Your task to perform on an android device: What's on my calendar tomorrow? Image 0: 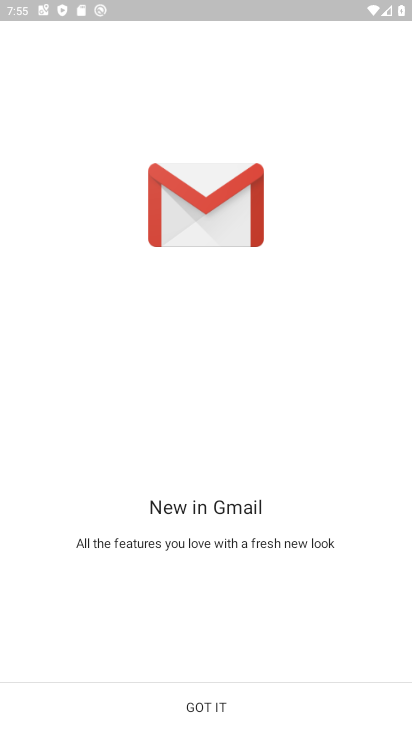
Step 0: press back button
Your task to perform on an android device: What's on my calendar tomorrow? Image 1: 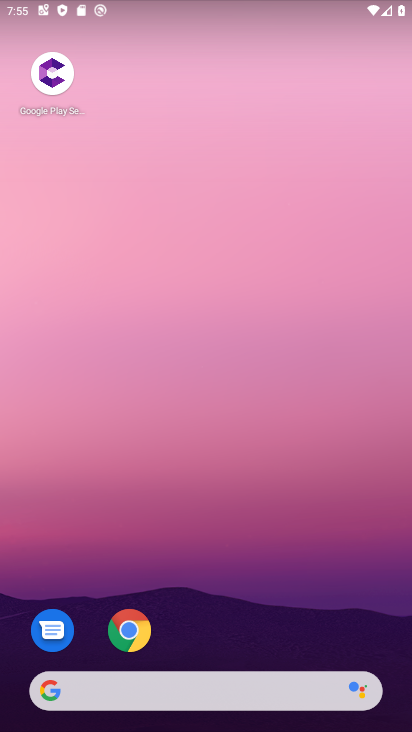
Step 1: drag from (282, 611) to (290, 13)
Your task to perform on an android device: What's on my calendar tomorrow? Image 2: 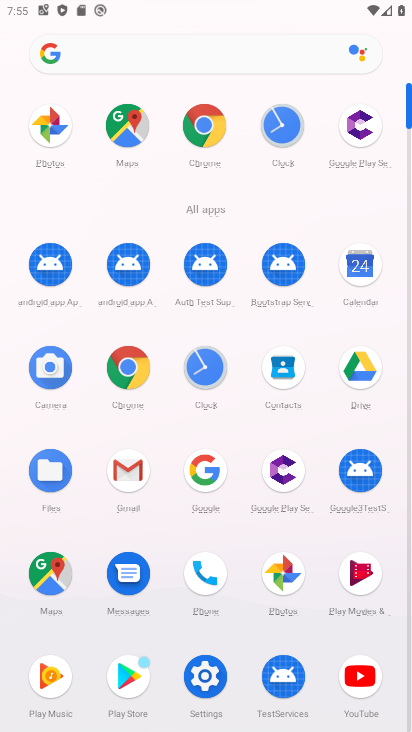
Step 2: click (357, 264)
Your task to perform on an android device: What's on my calendar tomorrow? Image 3: 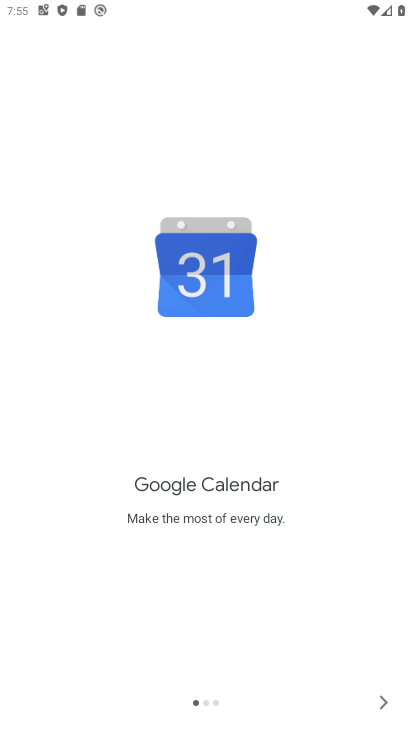
Step 3: click (391, 695)
Your task to perform on an android device: What's on my calendar tomorrow? Image 4: 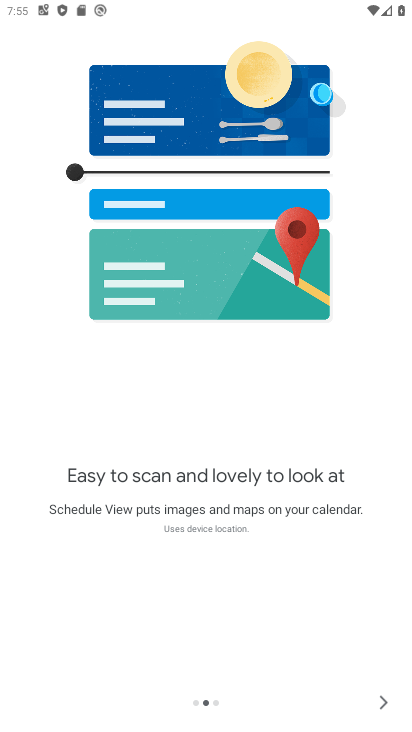
Step 4: click (387, 700)
Your task to perform on an android device: What's on my calendar tomorrow? Image 5: 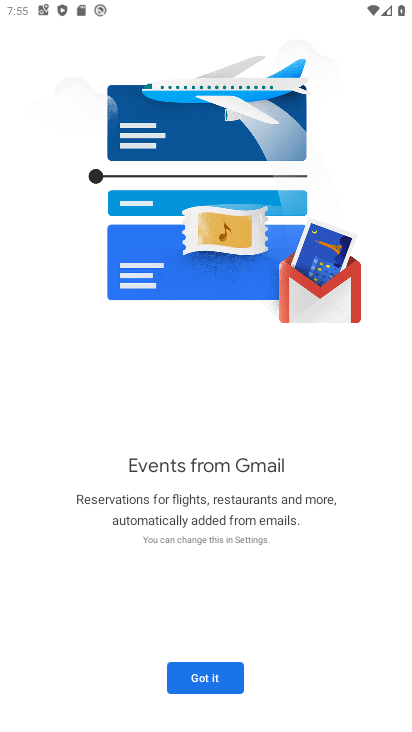
Step 5: click (203, 680)
Your task to perform on an android device: What's on my calendar tomorrow? Image 6: 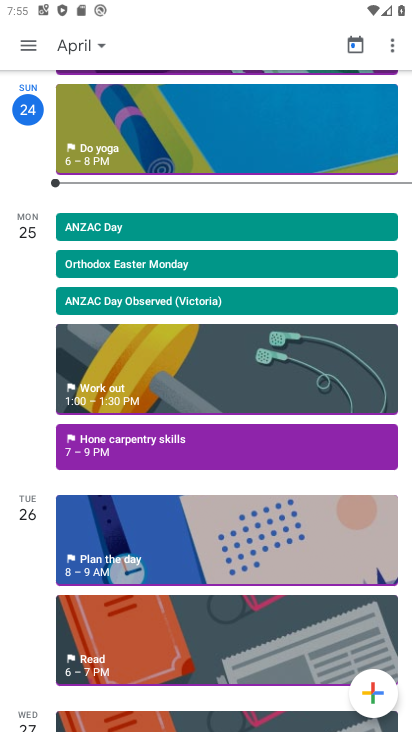
Step 6: drag from (10, 397) to (31, 207)
Your task to perform on an android device: What's on my calendar tomorrow? Image 7: 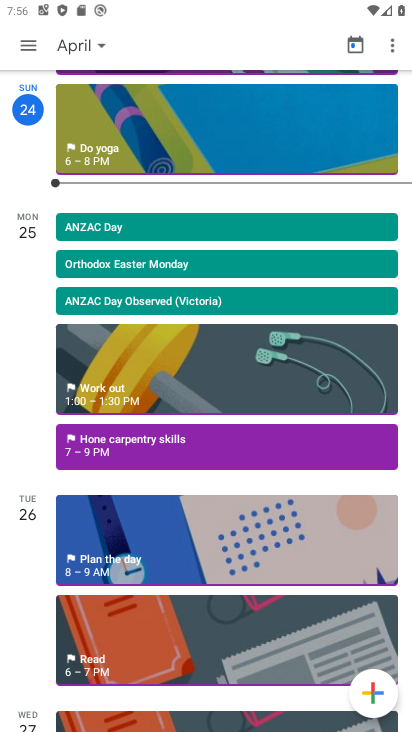
Step 7: click (28, 233)
Your task to perform on an android device: What's on my calendar tomorrow? Image 8: 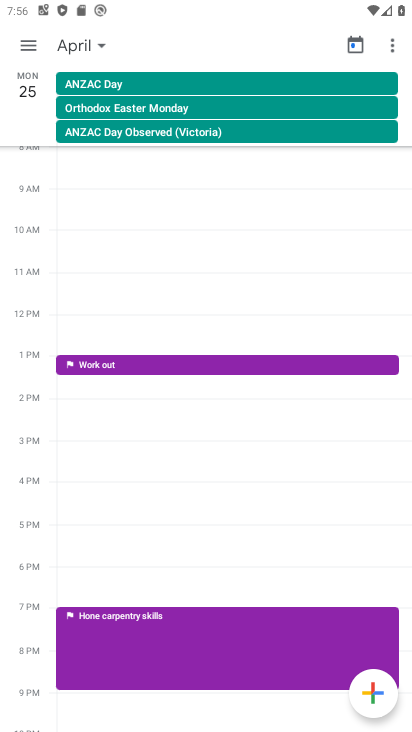
Step 8: task complete